Your task to perform on an android device: Clear the cart on ebay. Add "razer huntsman" to the cart on ebay Image 0: 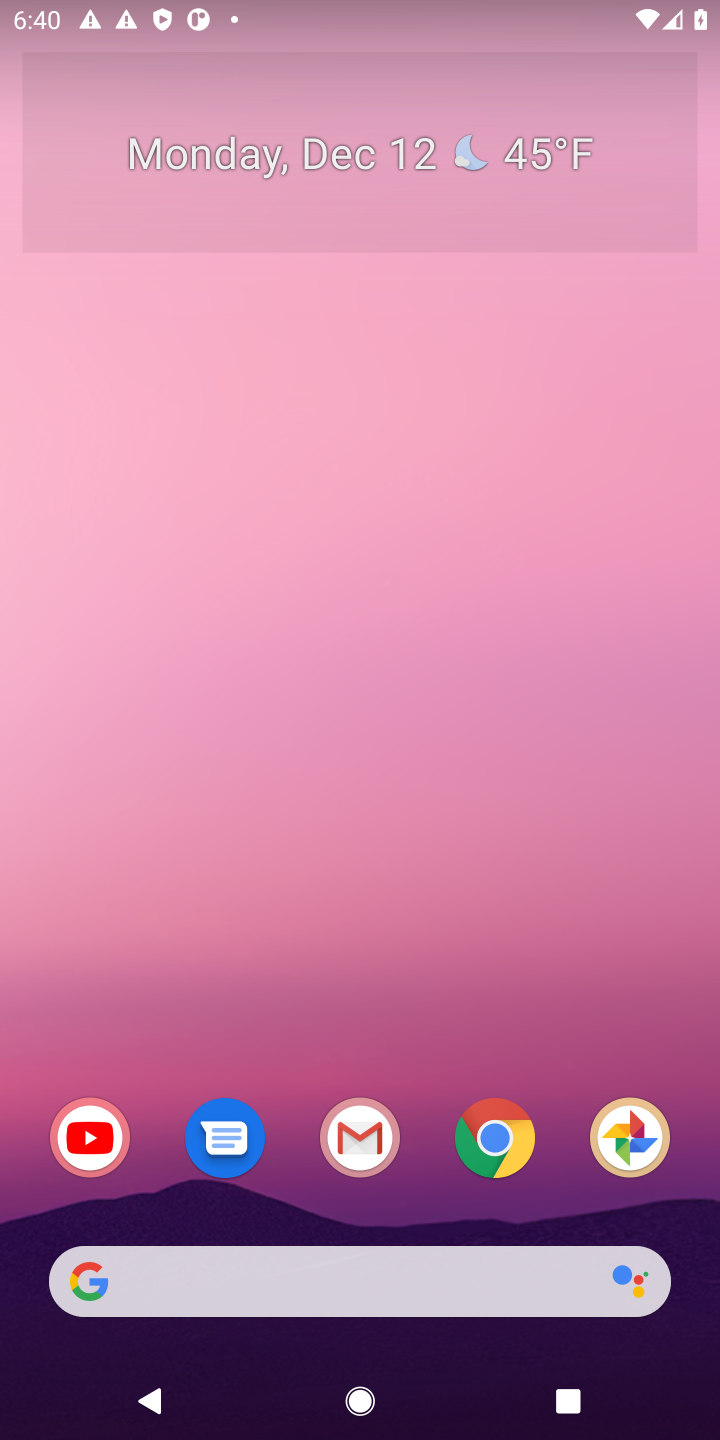
Step 0: click (374, 1264)
Your task to perform on an android device: Clear the cart on ebay. Add "razer huntsman" to the cart on ebay Image 1: 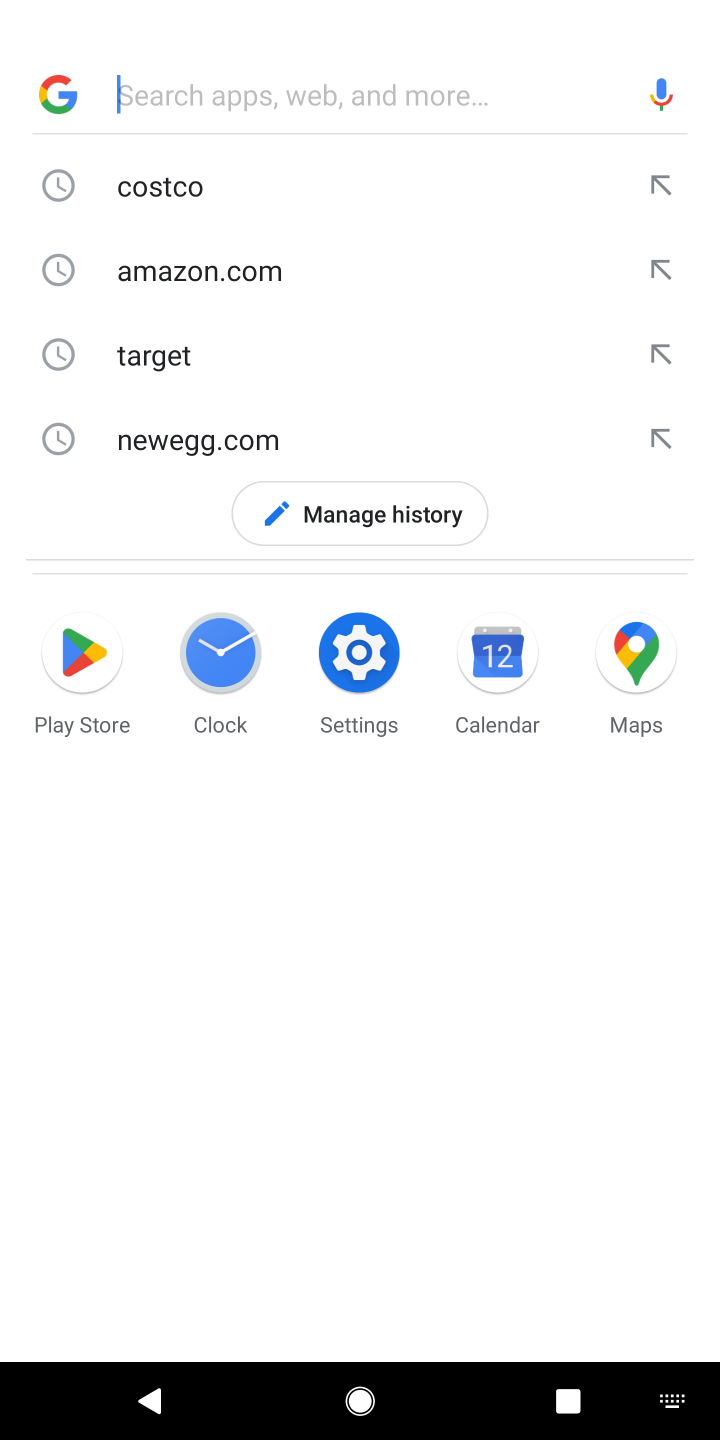
Step 1: type "ebay"
Your task to perform on an android device: Clear the cart on ebay. Add "razer huntsman" to the cart on ebay Image 2: 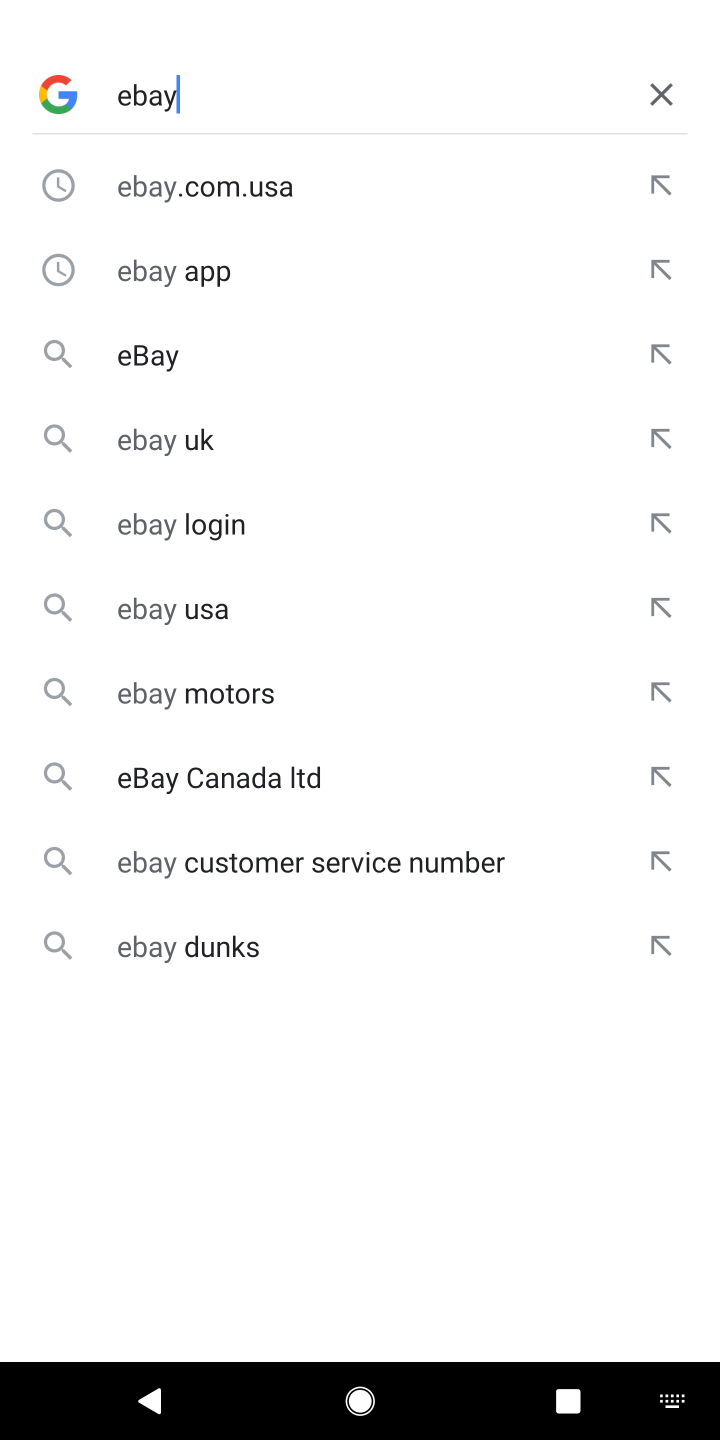
Step 2: press home button
Your task to perform on an android device: Clear the cart on ebay. Add "razer huntsman" to the cart on ebay Image 3: 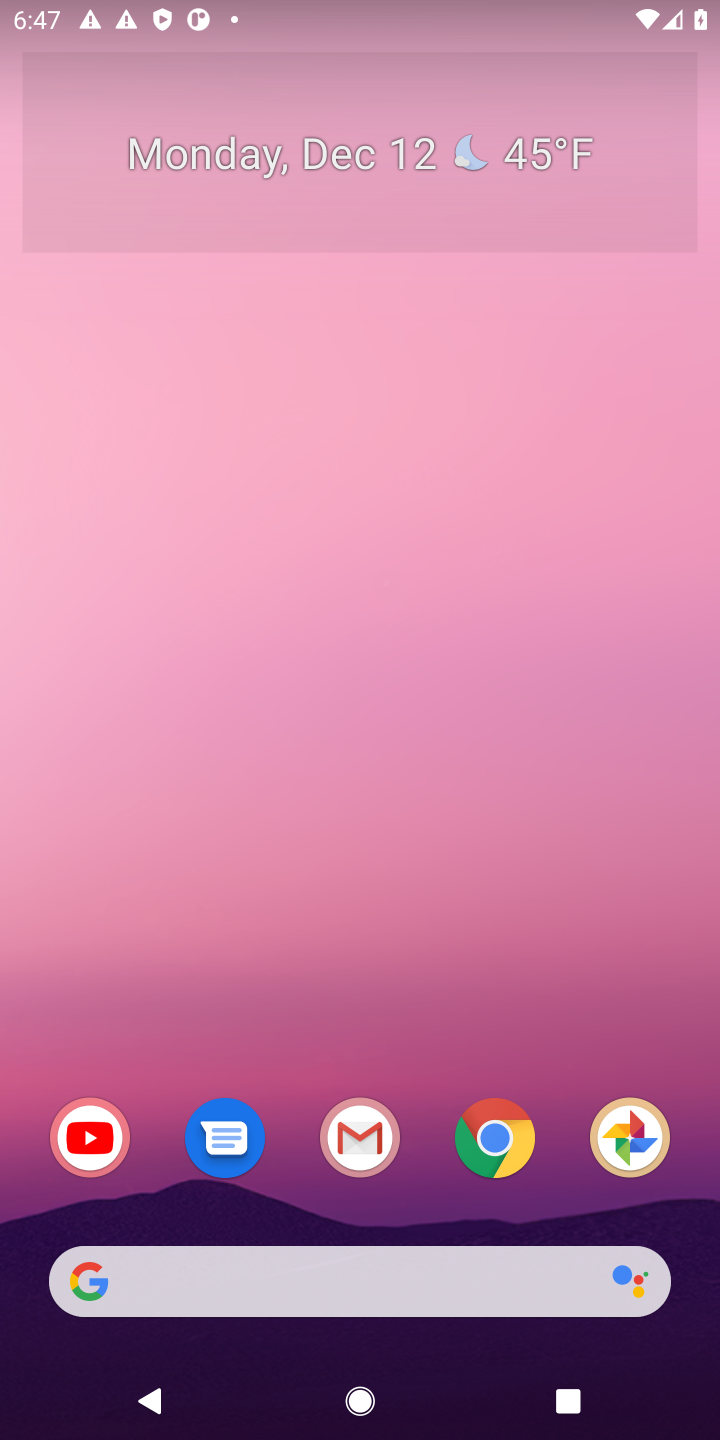
Step 3: click (362, 1266)
Your task to perform on an android device: Clear the cart on ebay. Add "razer huntsman" to the cart on ebay Image 4: 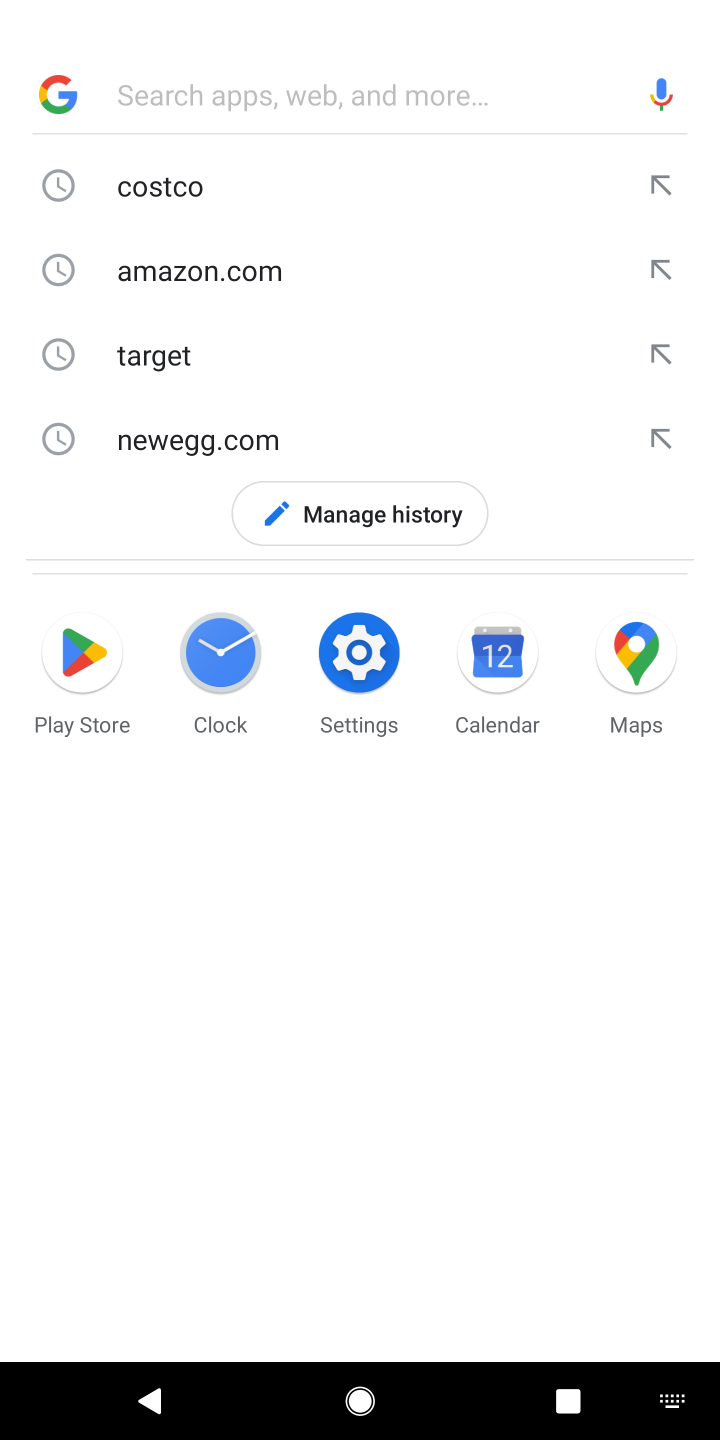
Step 4: type "ebay"
Your task to perform on an android device: Clear the cart on ebay. Add "razer huntsman" to the cart on ebay Image 5: 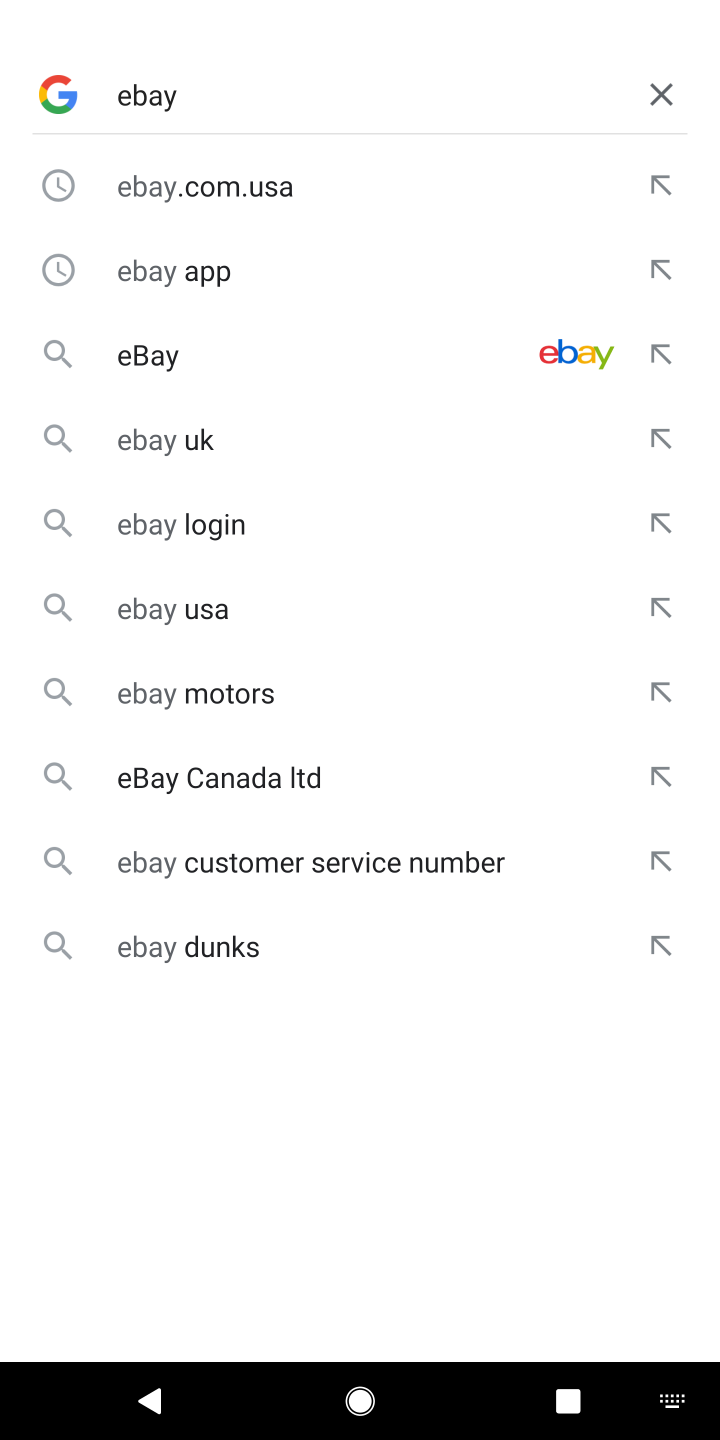
Step 5: click (152, 360)
Your task to perform on an android device: Clear the cart on ebay. Add "razer huntsman" to the cart on ebay Image 6: 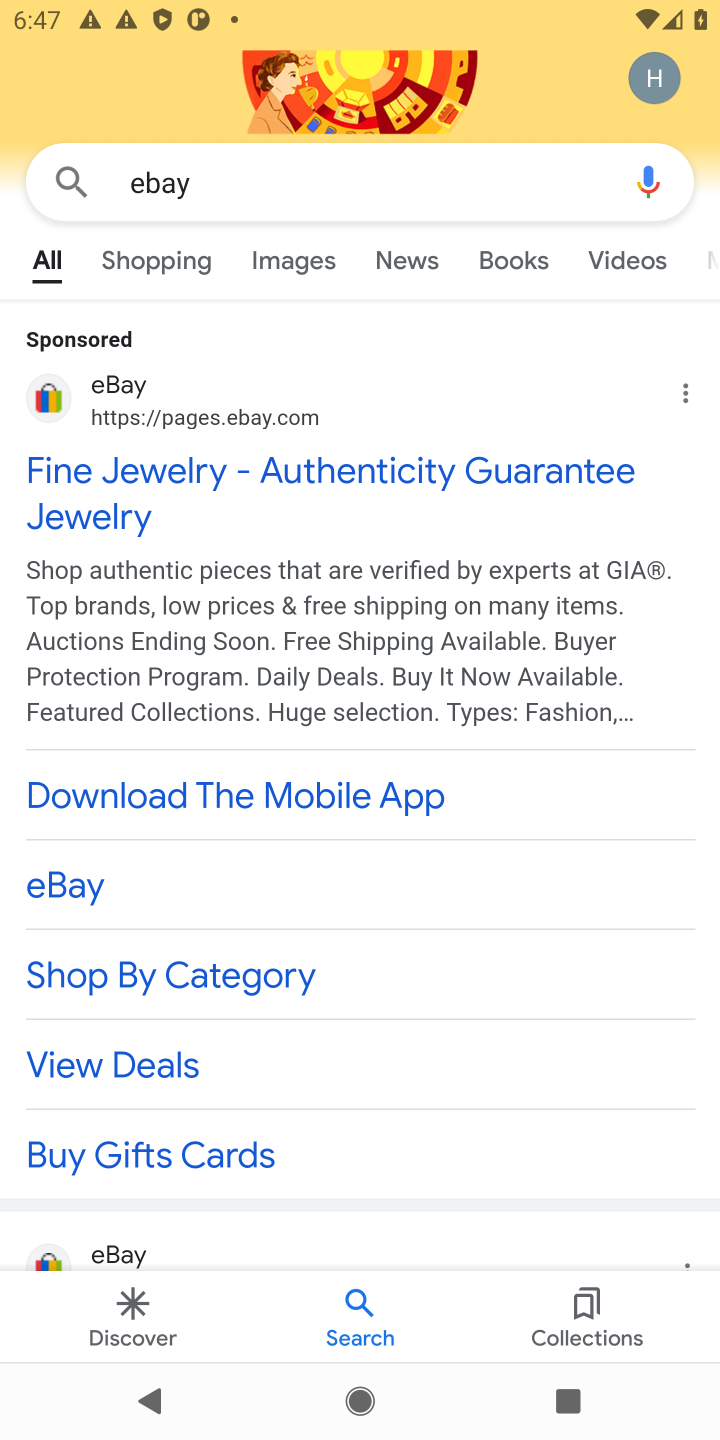
Step 6: click (353, 488)
Your task to perform on an android device: Clear the cart on ebay. Add "razer huntsman" to the cart on ebay Image 7: 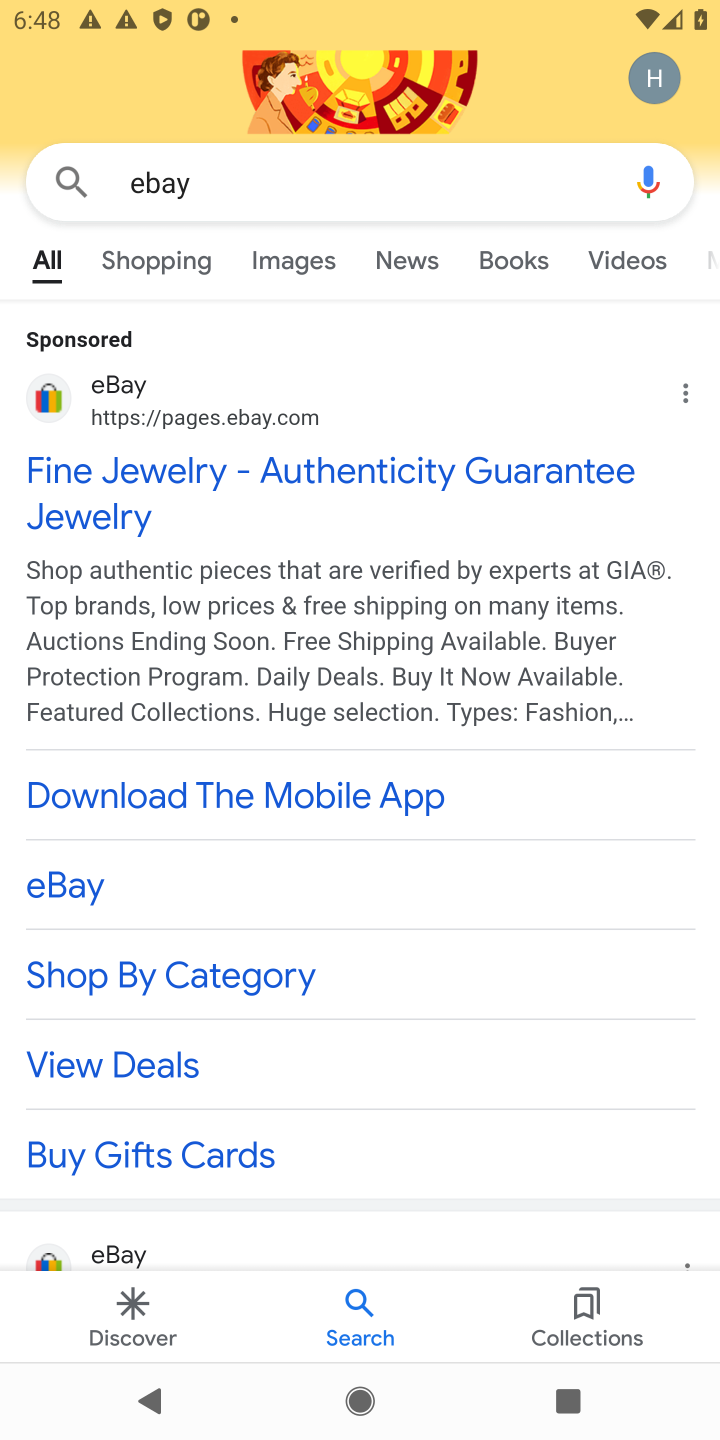
Step 7: click (325, 481)
Your task to perform on an android device: Clear the cart on ebay. Add "razer huntsman" to the cart on ebay Image 8: 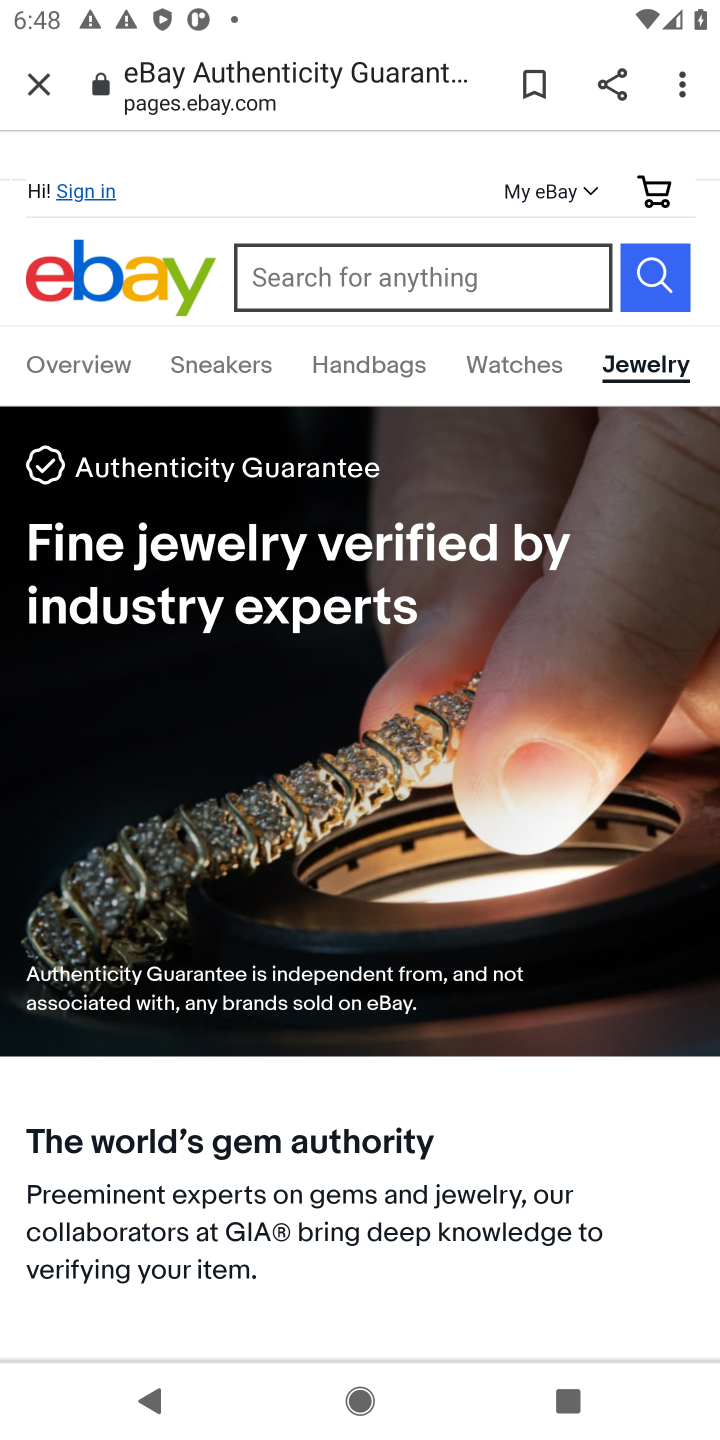
Step 8: click (462, 274)
Your task to perform on an android device: Clear the cart on ebay. Add "razer huntsman" to the cart on ebay Image 9: 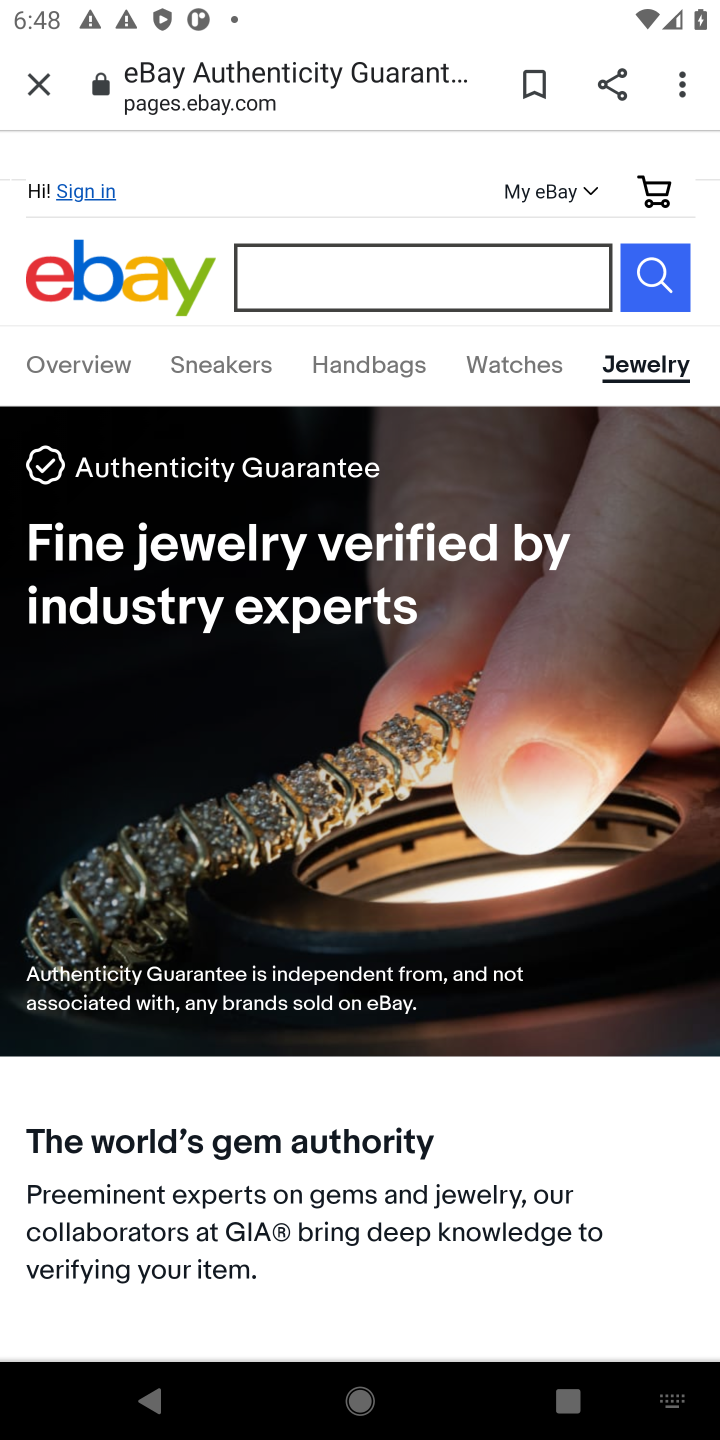
Step 9: type "razer huntsman"
Your task to perform on an android device: Clear the cart on ebay. Add "razer huntsman" to the cart on ebay Image 10: 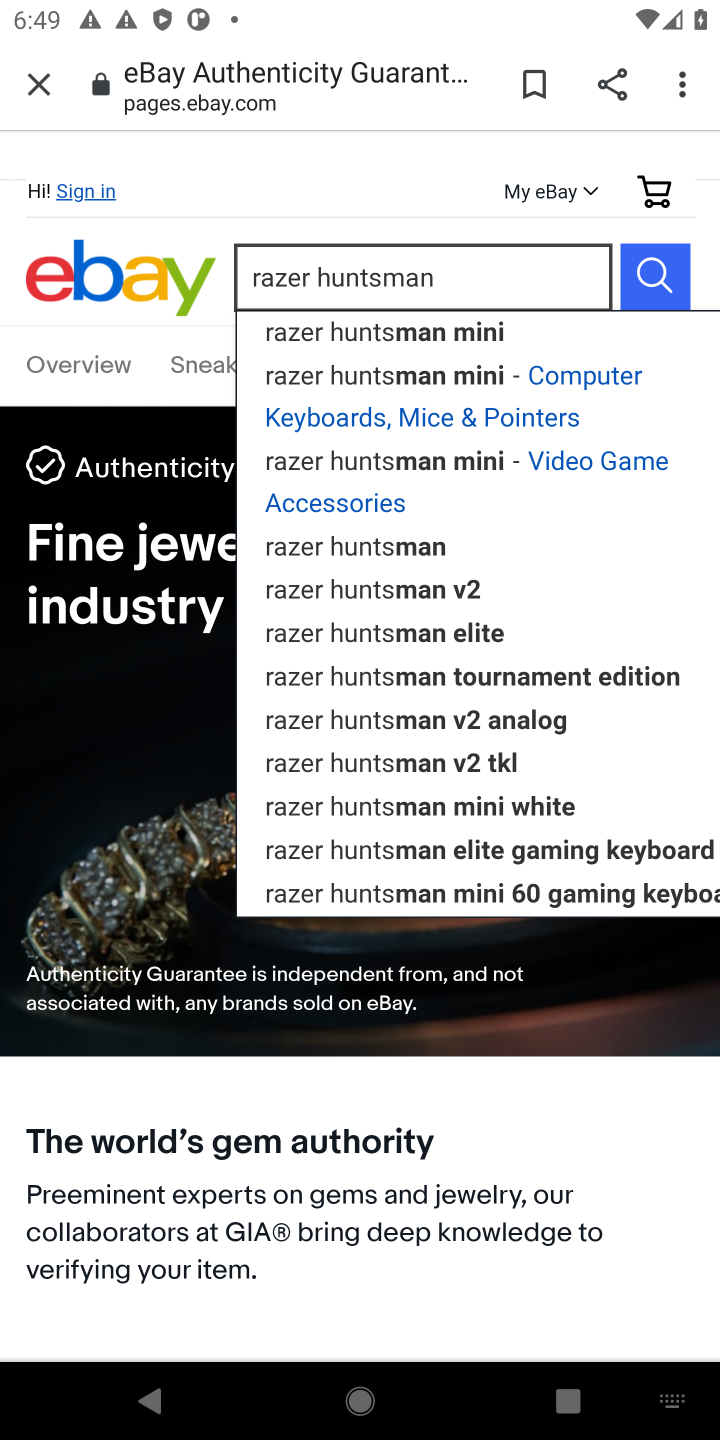
Step 10: click (397, 336)
Your task to perform on an android device: Clear the cart on ebay. Add "razer huntsman" to the cart on ebay Image 11: 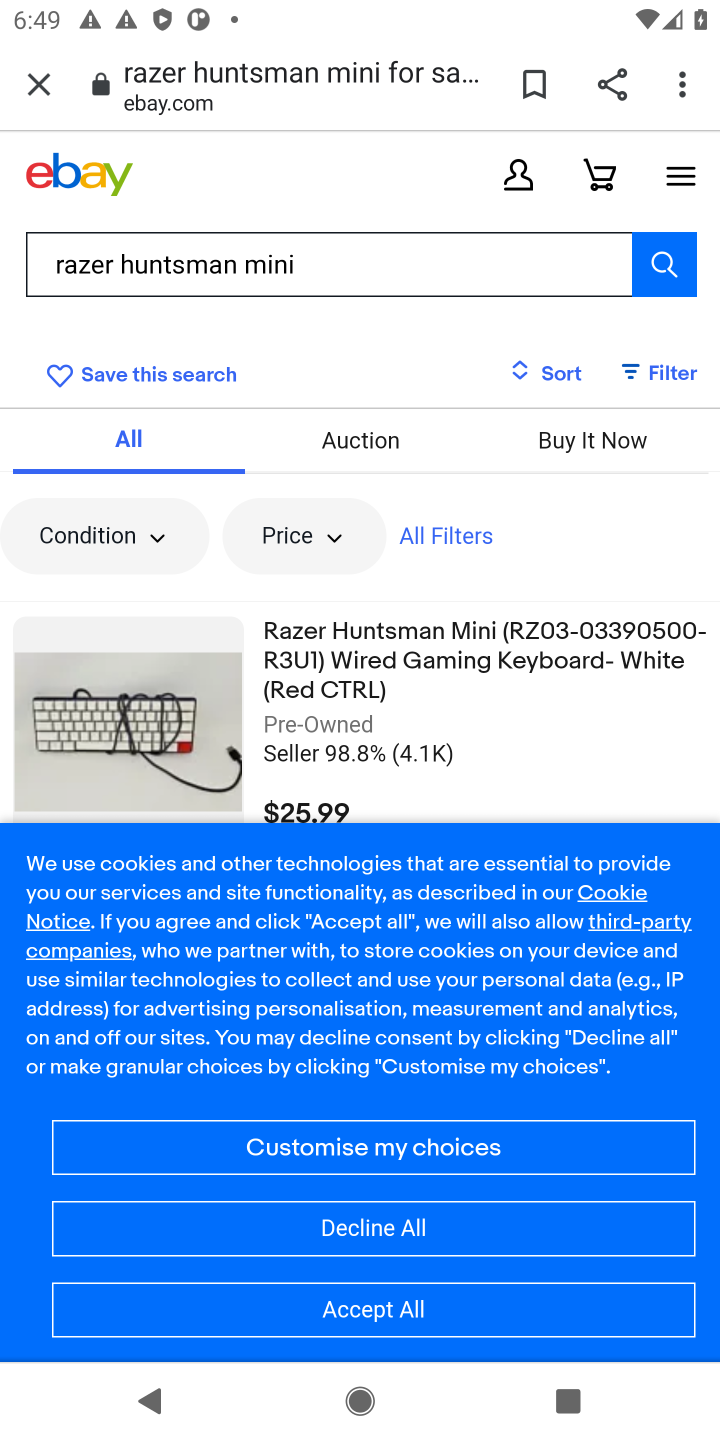
Step 11: click (325, 708)
Your task to perform on an android device: Clear the cart on ebay. Add "razer huntsman" to the cart on ebay Image 12: 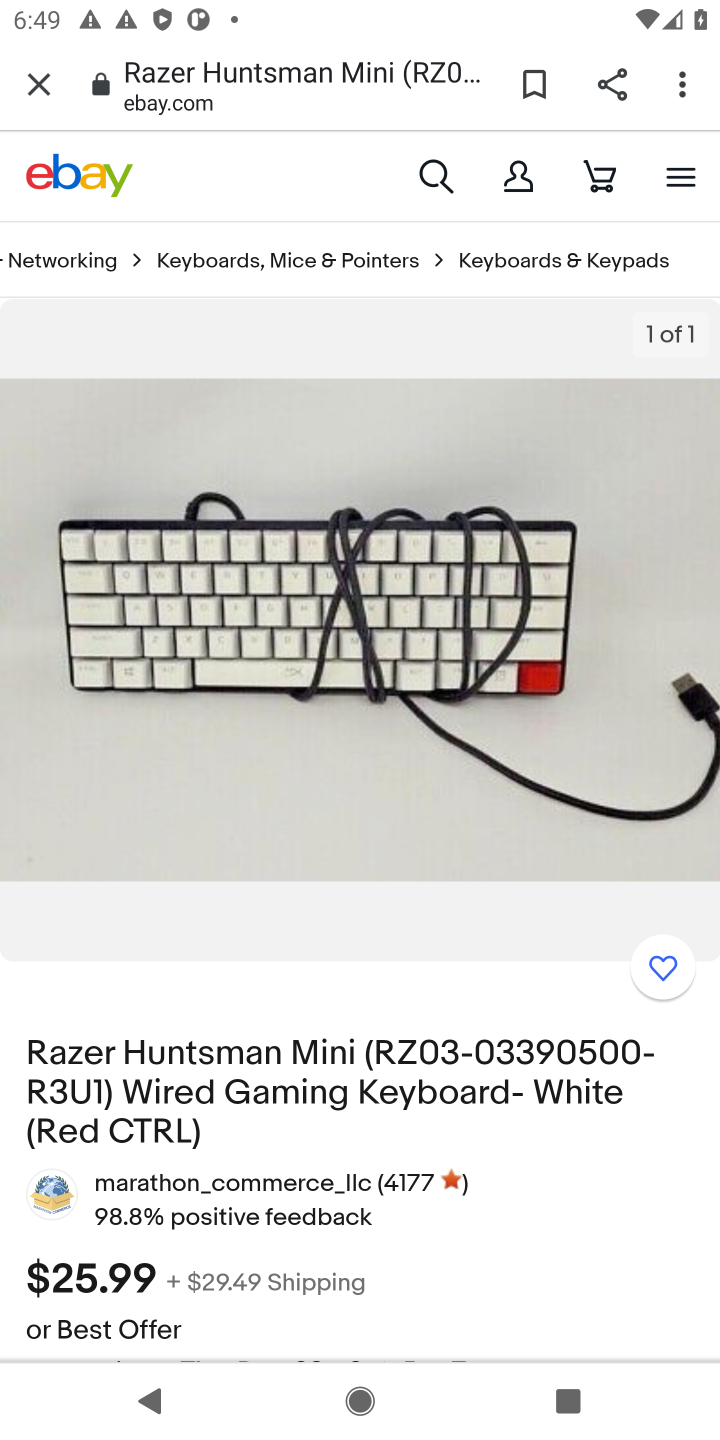
Step 12: drag from (433, 1237) to (556, 585)
Your task to perform on an android device: Clear the cart on ebay. Add "razer huntsman" to the cart on ebay Image 13: 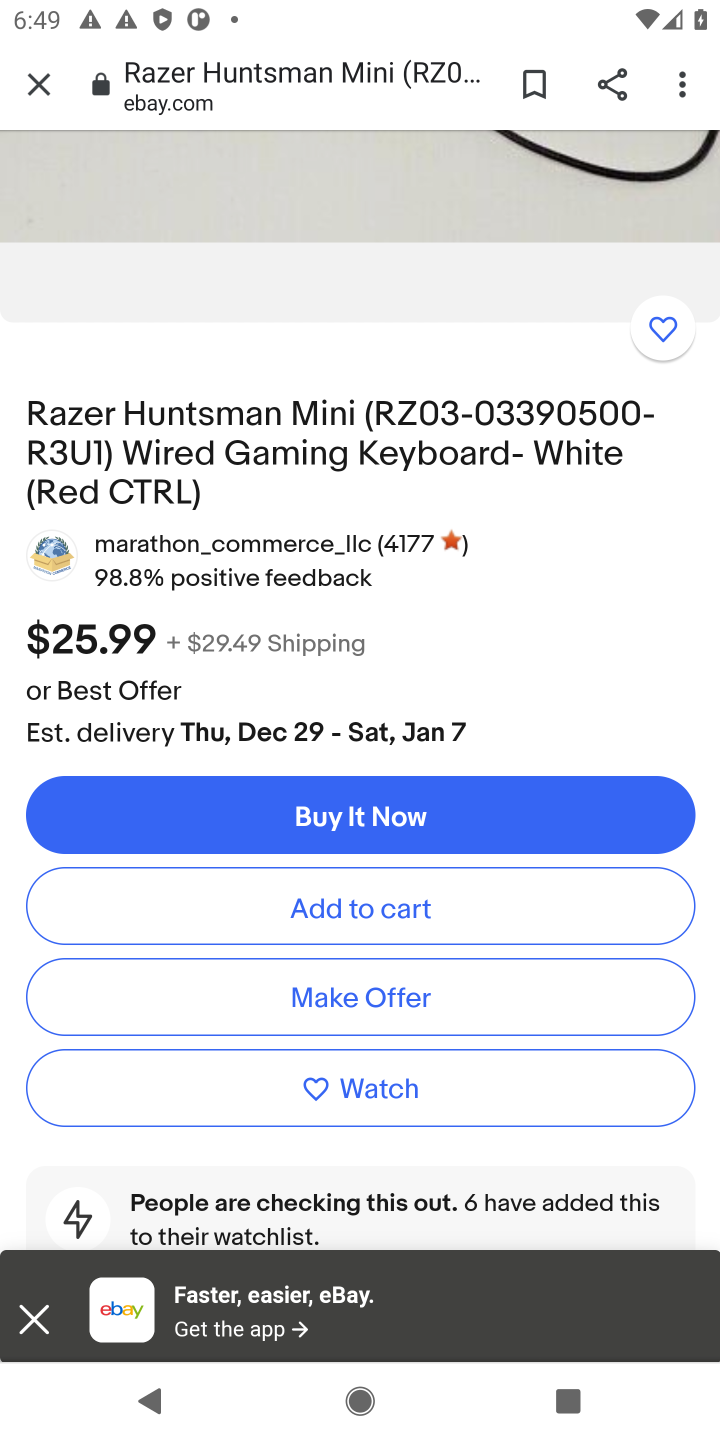
Step 13: click (322, 915)
Your task to perform on an android device: Clear the cart on ebay. Add "razer huntsman" to the cart on ebay Image 14: 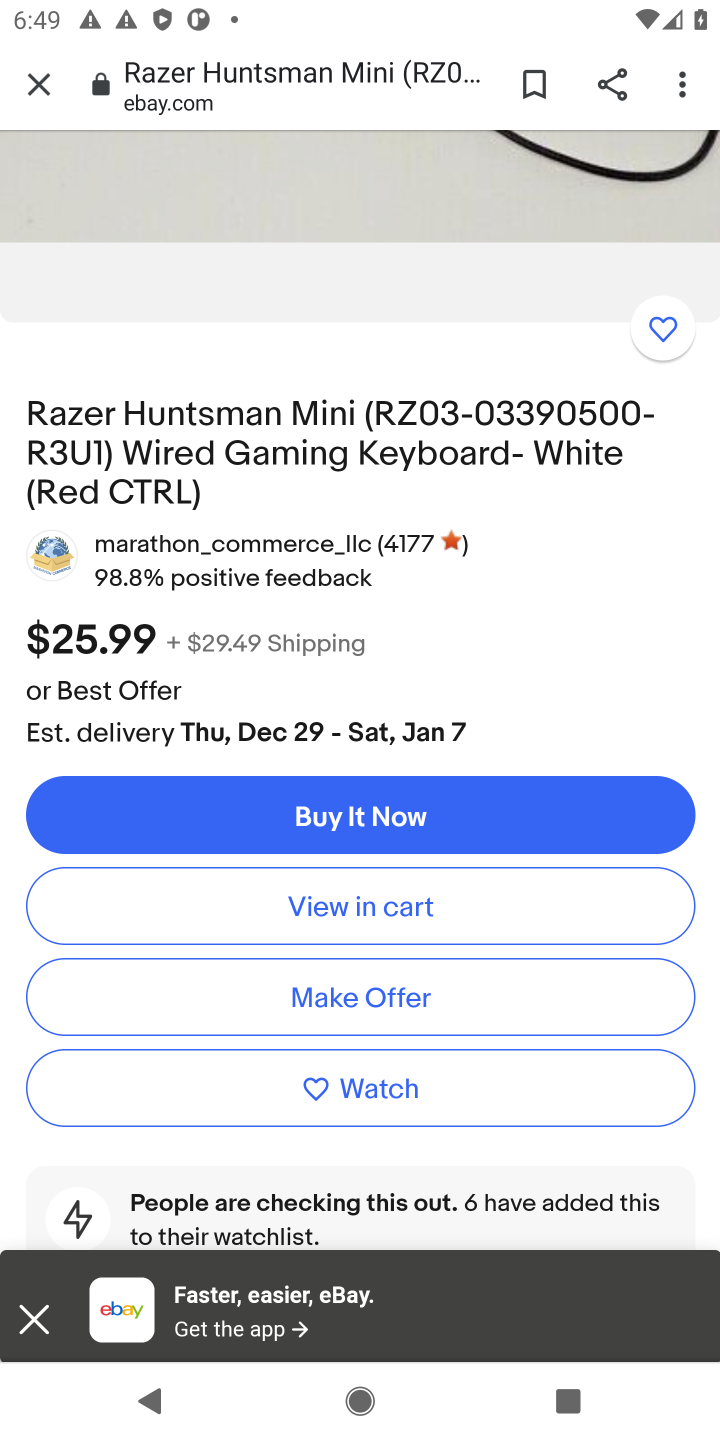
Step 14: task complete